Your task to perform on an android device: toggle location history Image 0: 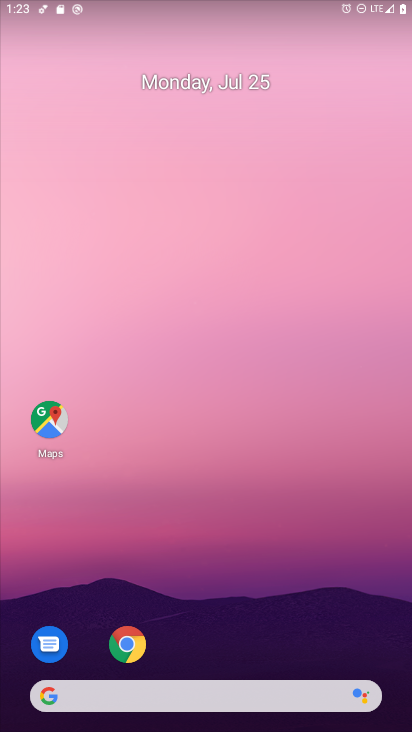
Step 0: drag from (247, 623) to (229, 216)
Your task to perform on an android device: toggle location history Image 1: 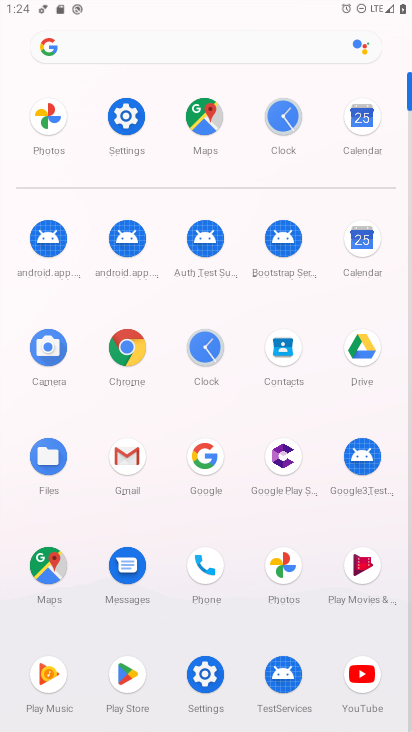
Step 1: click (115, 102)
Your task to perform on an android device: toggle location history Image 2: 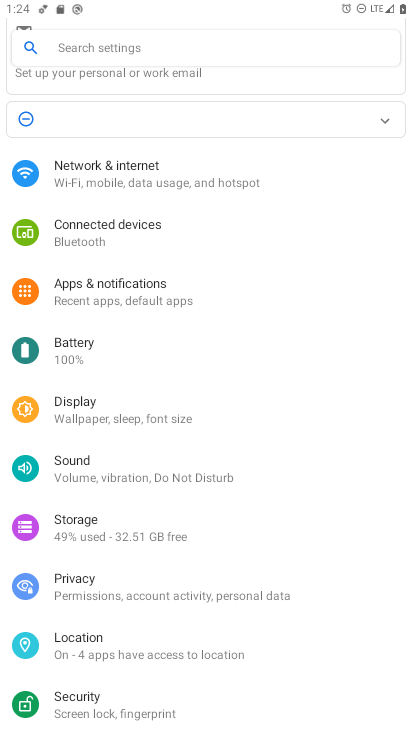
Step 2: click (67, 636)
Your task to perform on an android device: toggle location history Image 3: 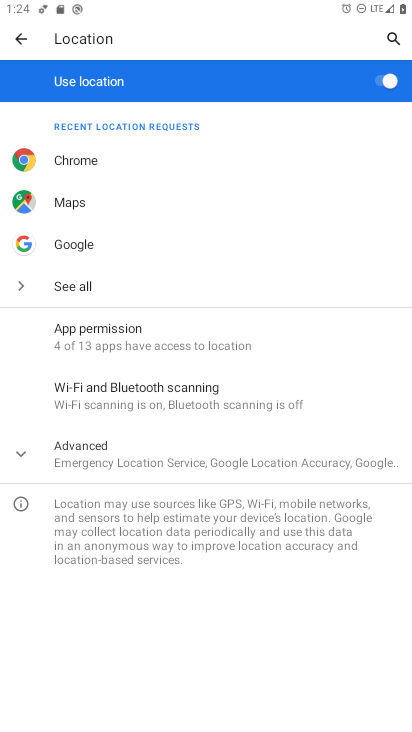
Step 3: click (144, 456)
Your task to perform on an android device: toggle location history Image 4: 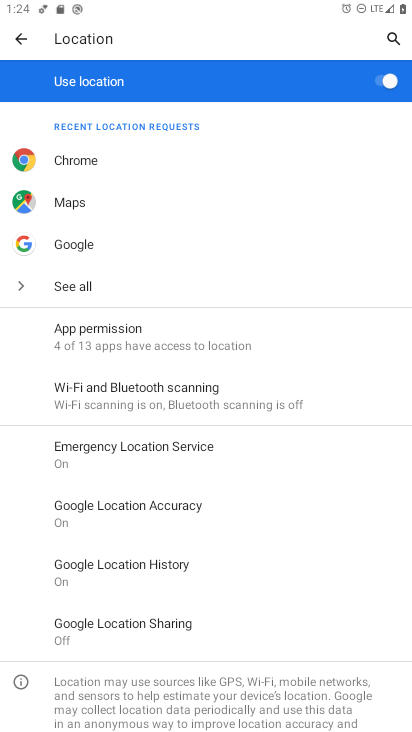
Step 4: click (160, 573)
Your task to perform on an android device: toggle location history Image 5: 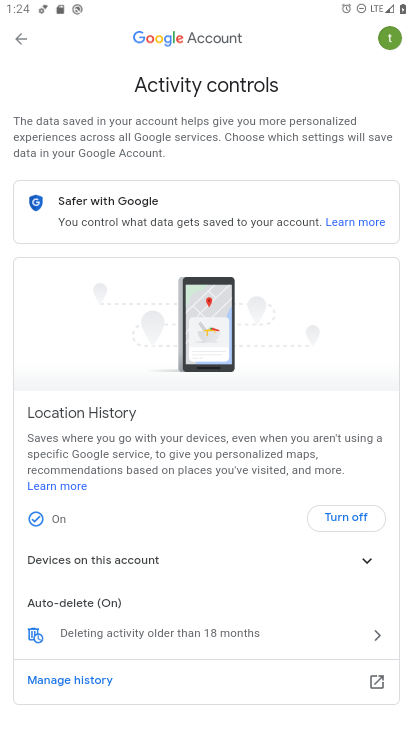
Step 5: click (341, 514)
Your task to perform on an android device: toggle location history Image 6: 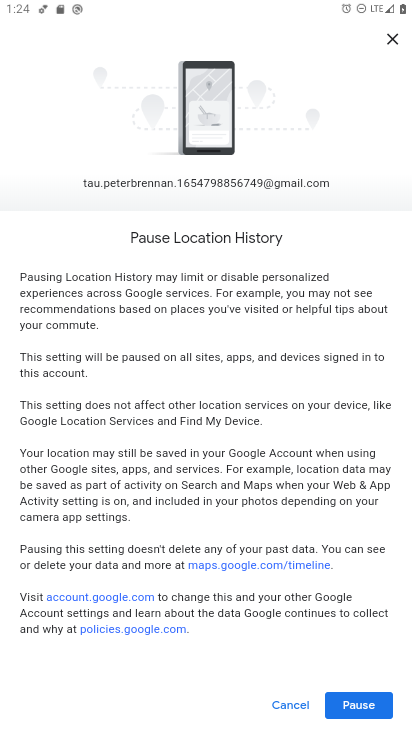
Step 6: click (358, 715)
Your task to perform on an android device: toggle location history Image 7: 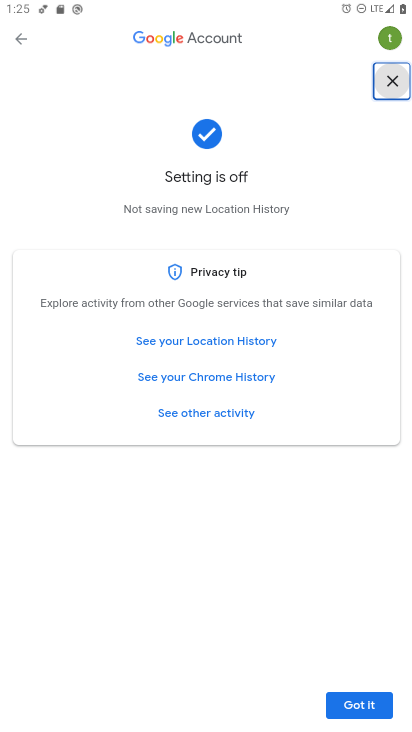
Step 7: click (356, 707)
Your task to perform on an android device: toggle location history Image 8: 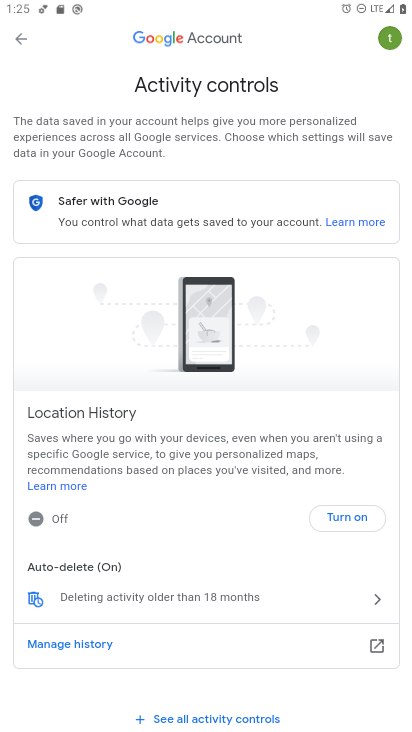
Step 8: task complete